Your task to perform on an android device: set an alarm Image 0: 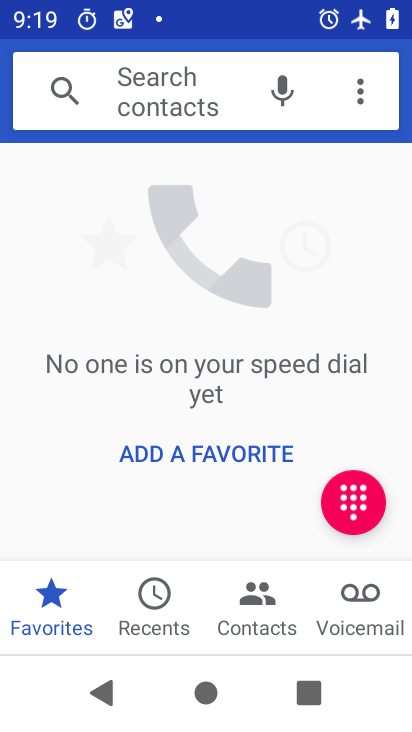
Step 0: press home button
Your task to perform on an android device: set an alarm Image 1: 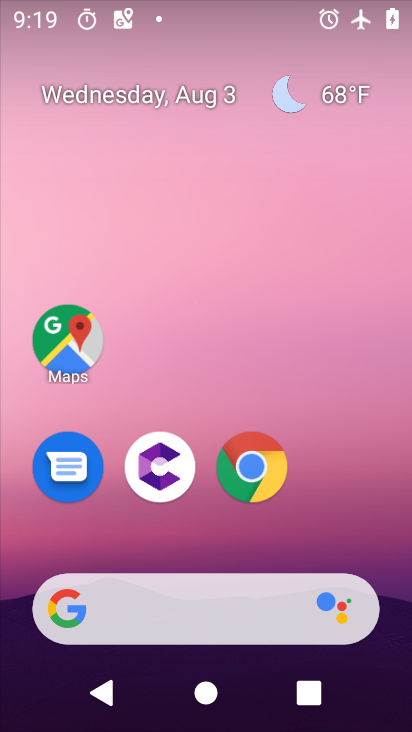
Step 1: drag from (361, 528) to (299, 51)
Your task to perform on an android device: set an alarm Image 2: 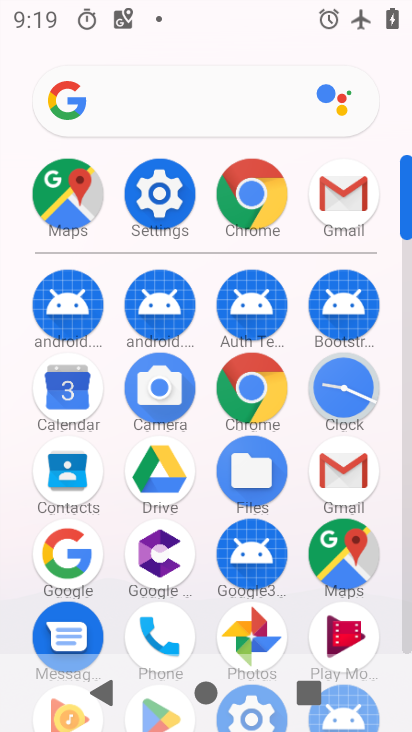
Step 2: click (322, 401)
Your task to perform on an android device: set an alarm Image 3: 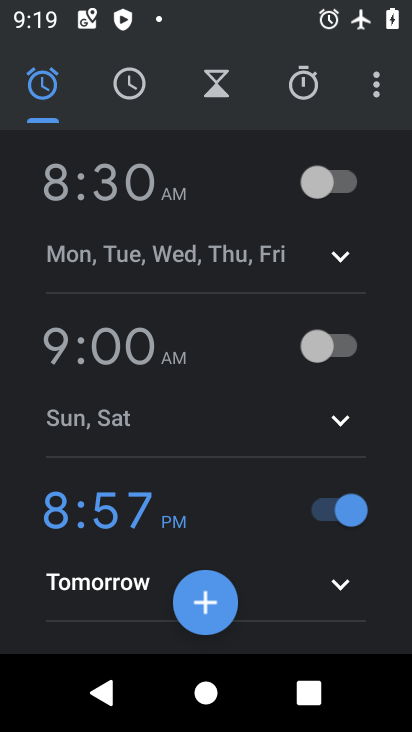
Step 3: click (309, 95)
Your task to perform on an android device: set an alarm Image 4: 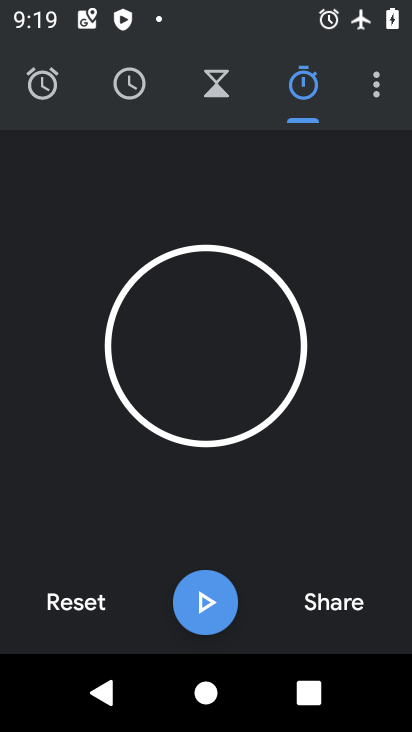
Step 4: click (28, 94)
Your task to perform on an android device: set an alarm Image 5: 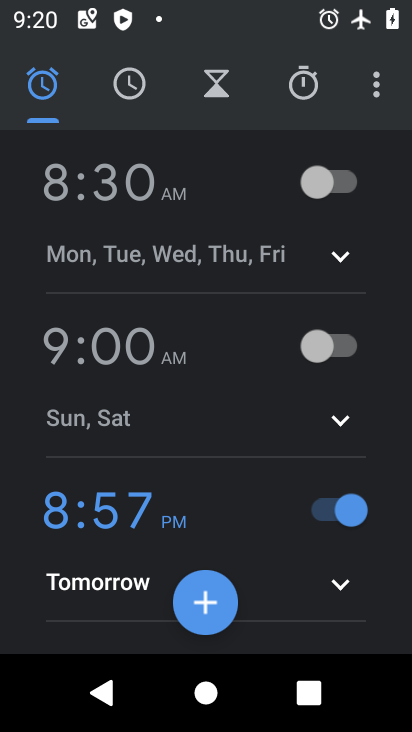
Step 5: task complete